Your task to perform on an android device: Open Amazon Image 0: 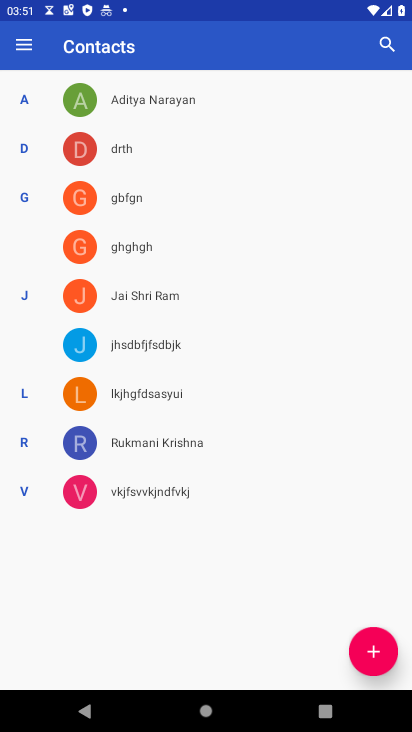
Step 0: press back button
Your task to perform on an android device: Open Amazon Image 1: 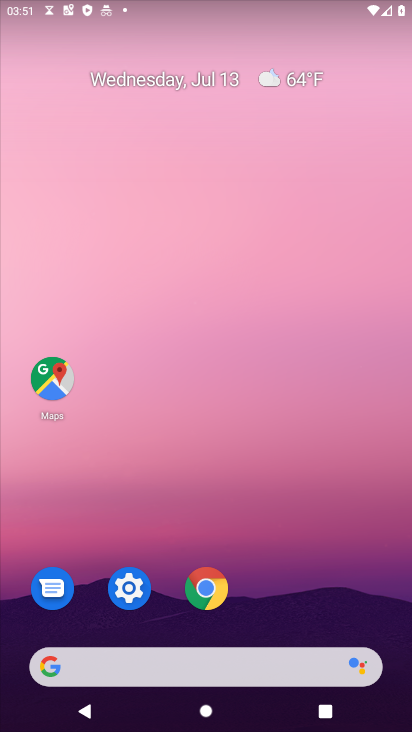
Step 1: drag from (245, 253) to (237, 192)
Your task to perform on an android device: Open Amazon Image 2: 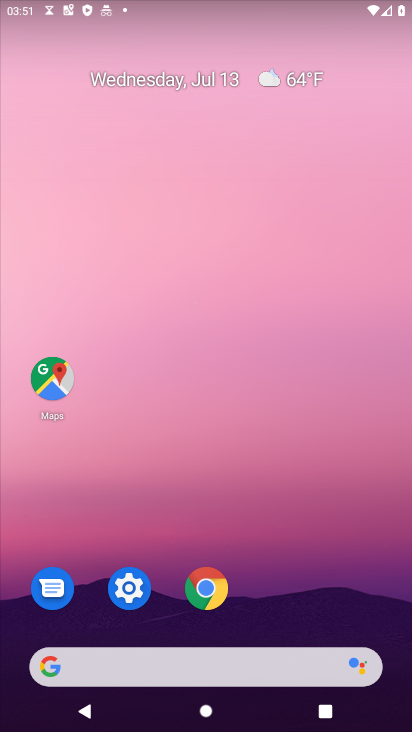
Step 2: drag from (306, 707) to (230, 237)
Your task to perform on an android device: Open Amazon Image 3: 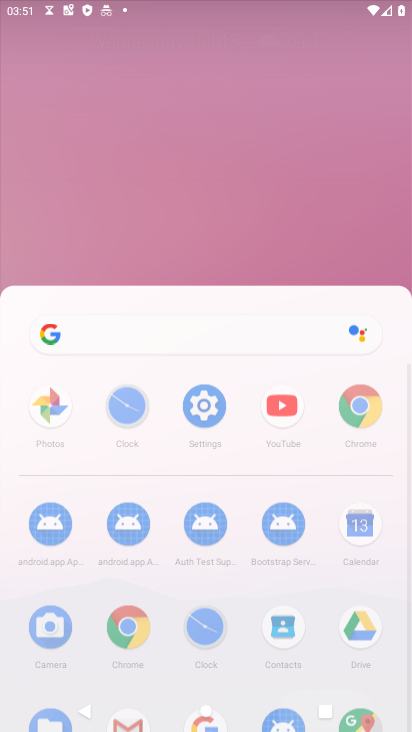
Step 3: drag from (240, 608) to (169, 115)
Your task to perform on an android device: Open Amazon Image 4: 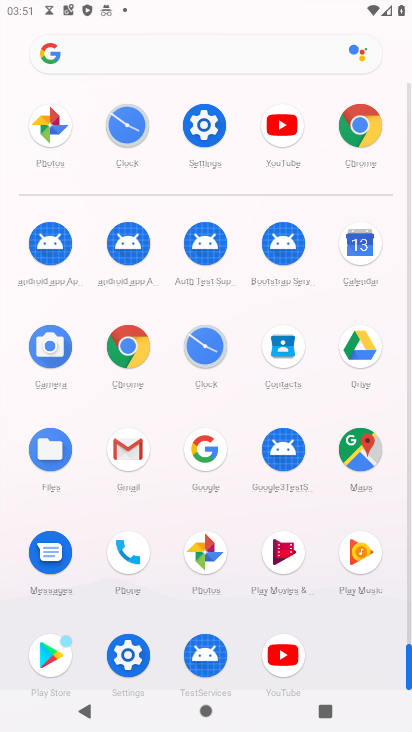
Step 4: click (371, 114)
Your task to perform on an android device: Open Amazon Image 5: 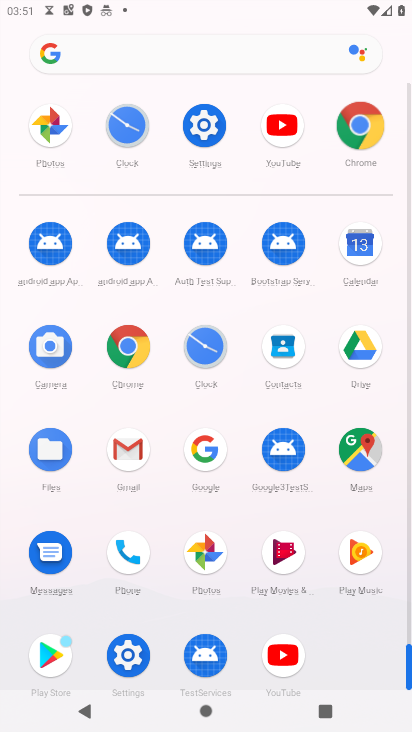
Step 5: click (371, 114)
Your task to perform on an android device: Open Amazon Image 6: 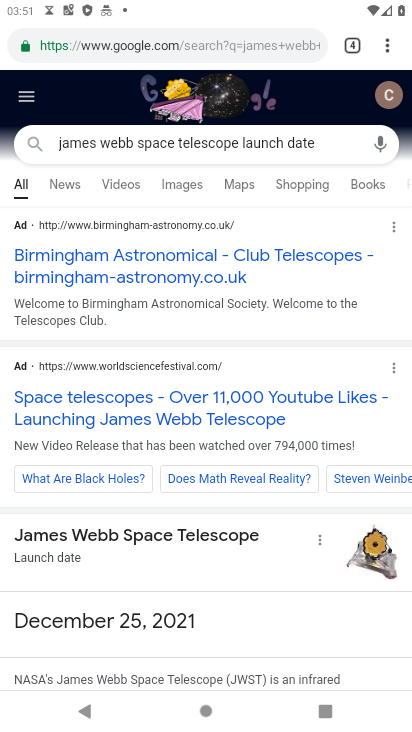
Step 6: drag from (389, 46) to (210, 131)
Your task to perform on an android device: Open Amazon Image 7: 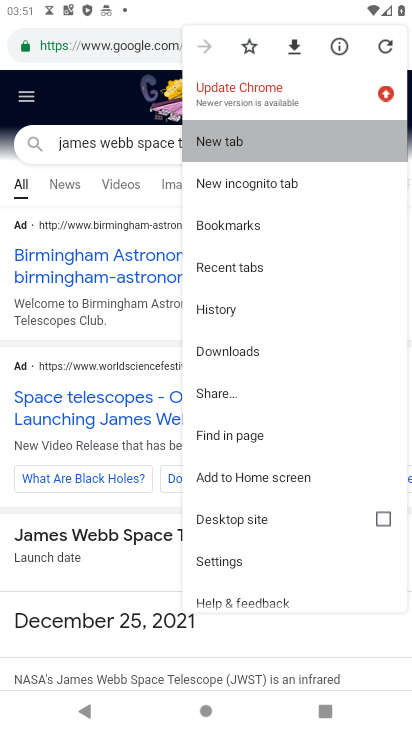
Step 7: click (210, 131)
Your task to perform on an android device: Open Amazon Image 8: 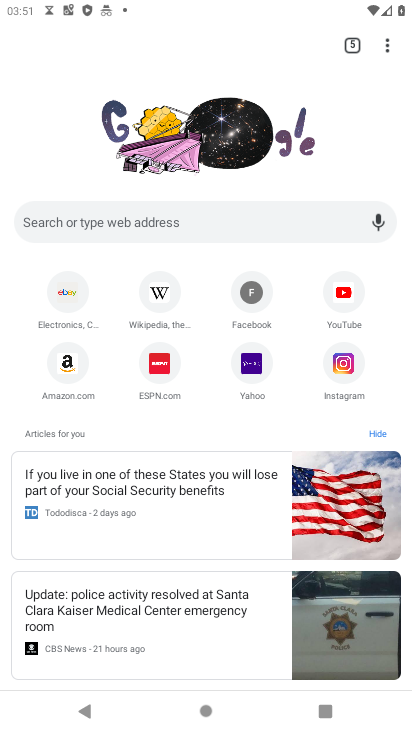
Step 8: click (63, 361)
Your task to perform on an android device: Open Amazon Image 9: 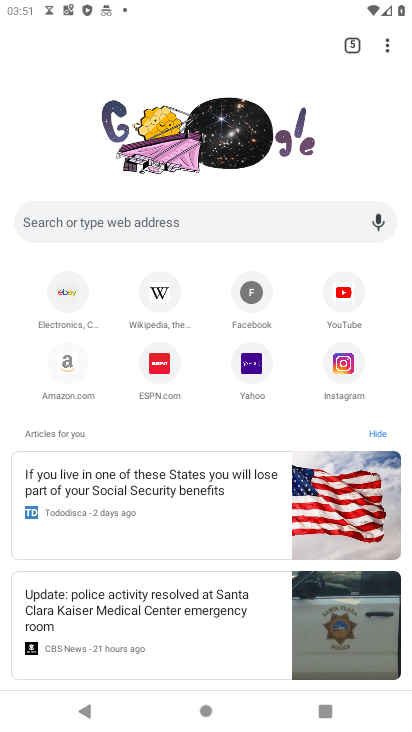
Step 9: click (63, 362)
Your task to perform on an android device: Open Amazon Image 10: 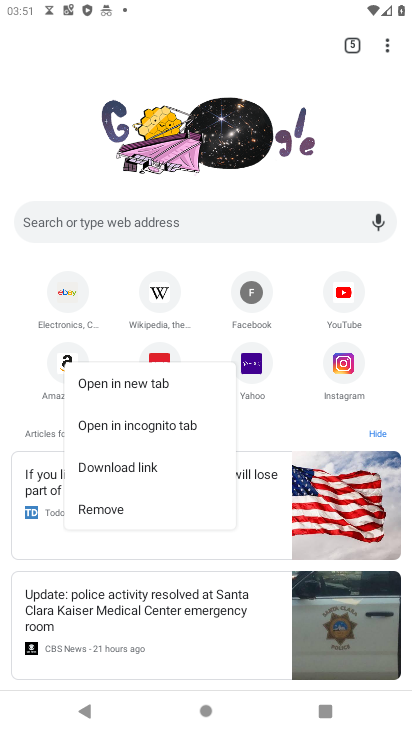
Step 10: click (65, 362)
Your task to perform on an android device: Open Amazon Image 11: 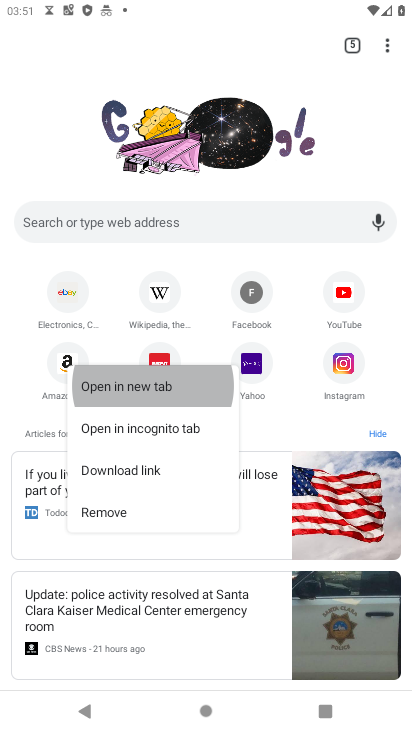
Step 11: click (66, 362)
Your task to perform on an android device: Open Amazon Image 12: 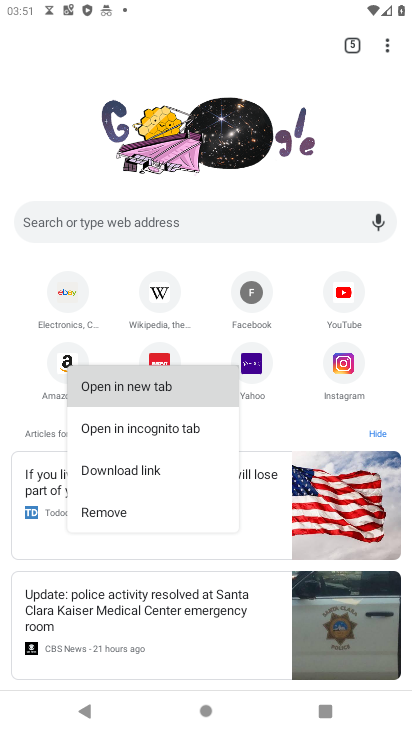
Step 12: click (66, 362)
Your task to perform on an android device: Open Amazon Image 13: 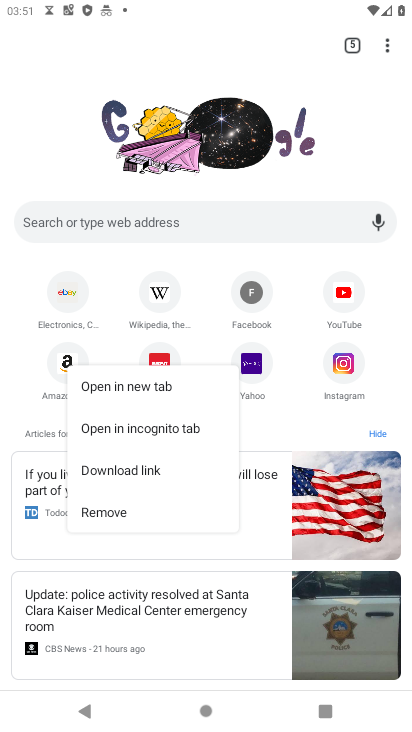
Step 13: click (67, 363)
Your task to perform on an android device: Open Amazon Image 14: 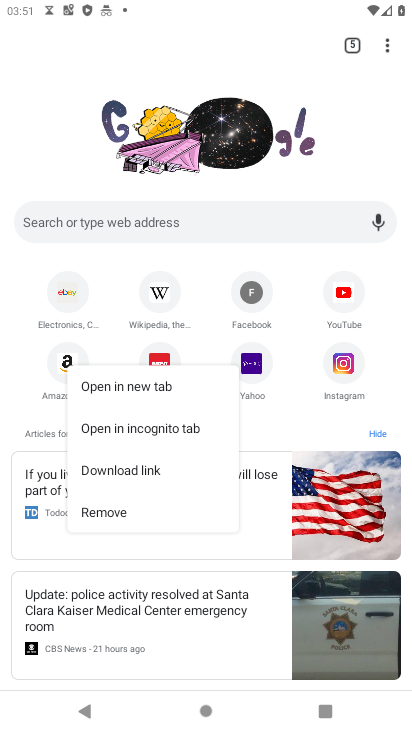
Step 14: click (68, 363)
Your task to perform on an android device: Open Amazon Image 15: 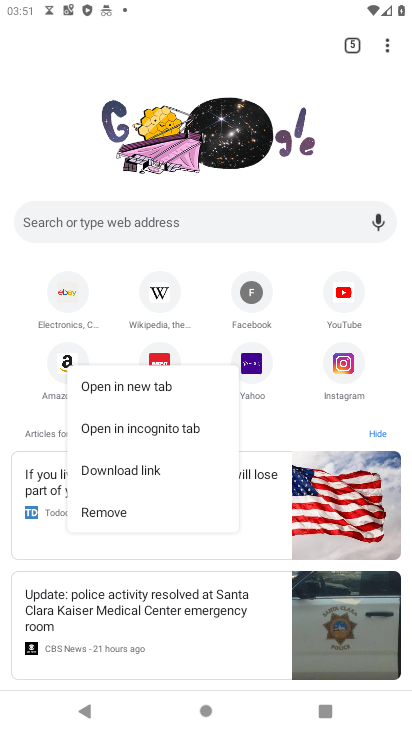
Step 15: click (69, 363)
Your task to perform on an android device: Open Amazon Image 16: 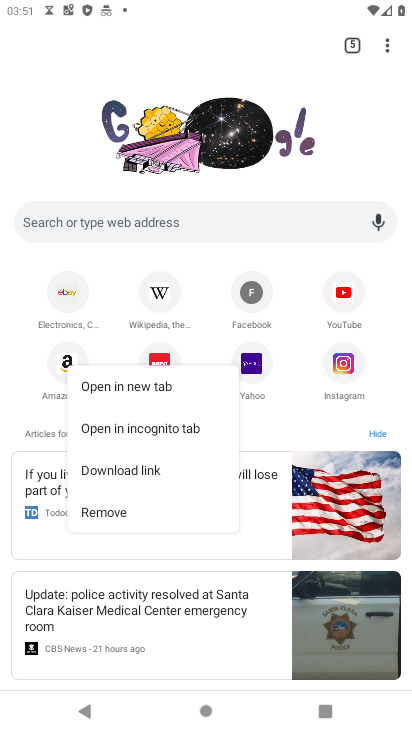
Step 16: click (74, 361)
Your task to perform on an android device: Open Amazon Image 17: 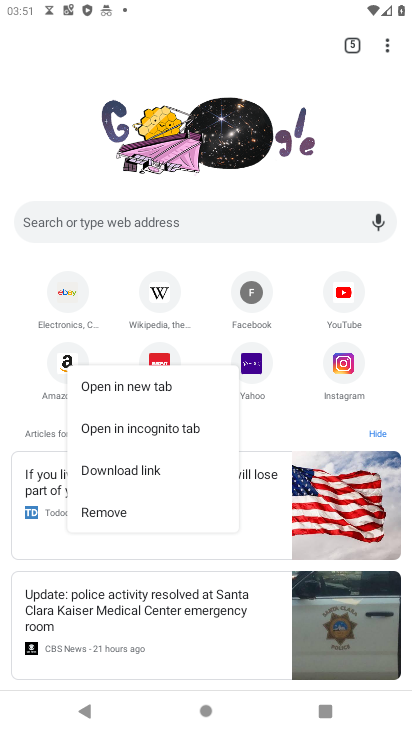
Step 17: click (74, 360)
Your task to perform on an android device: Open Amazon Image 18: 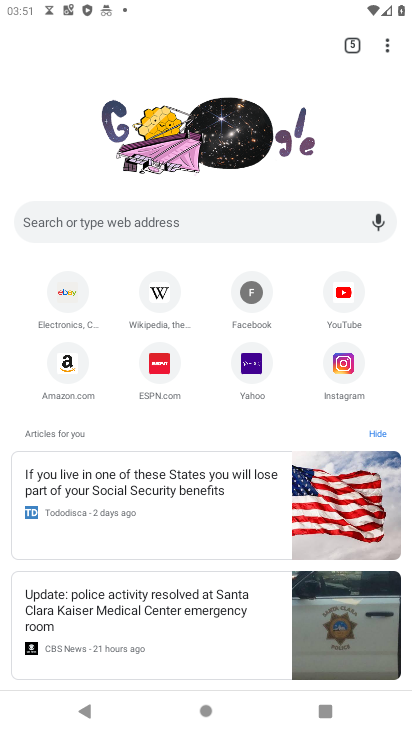
Step 18: click (74, 360)
Your task to perform on an android device: Open Amazon Image 19: 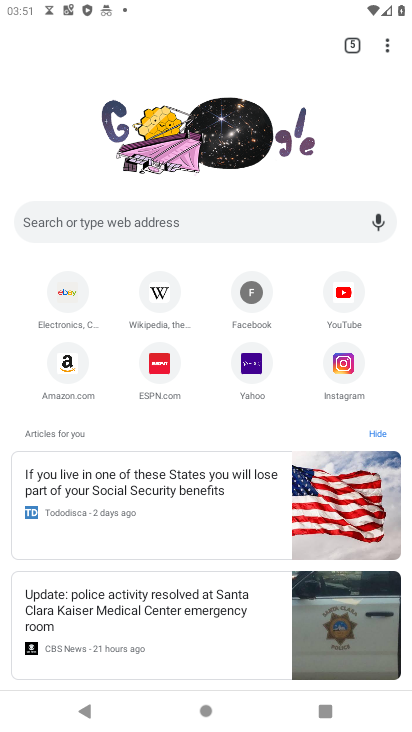
Step 19: click (74, 360)
Your task to perform on an android device: Open Amazon Image 20: 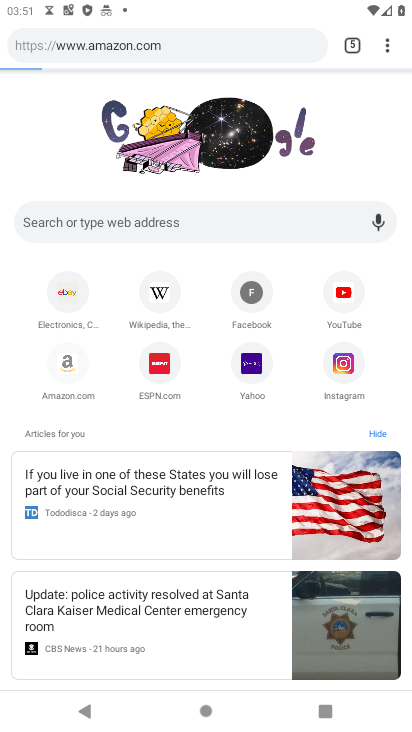
Step 20: click (73, 359)
Your task to perform on an android device: Open Amazon Image 21: 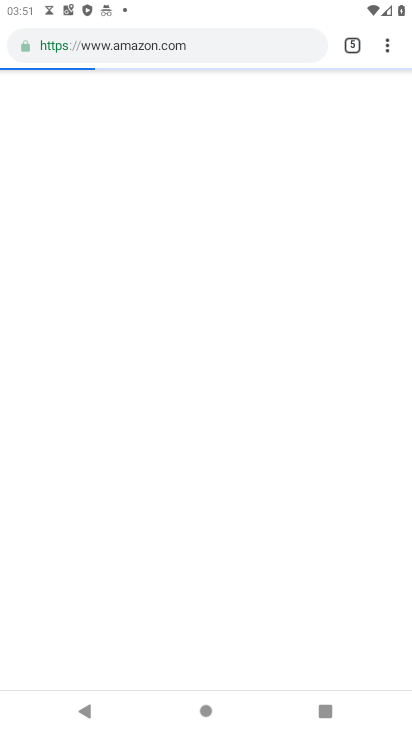
Step 21: click (68, 369)
Your task to perform on an android device: Open Amazon Image 22: 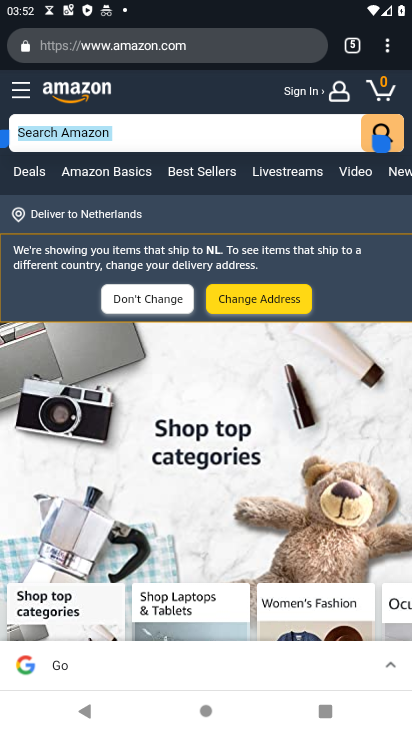
Step 22: task complete